Your task to perform on an android device: see tabs open on other devices in the chrome app Image 0: 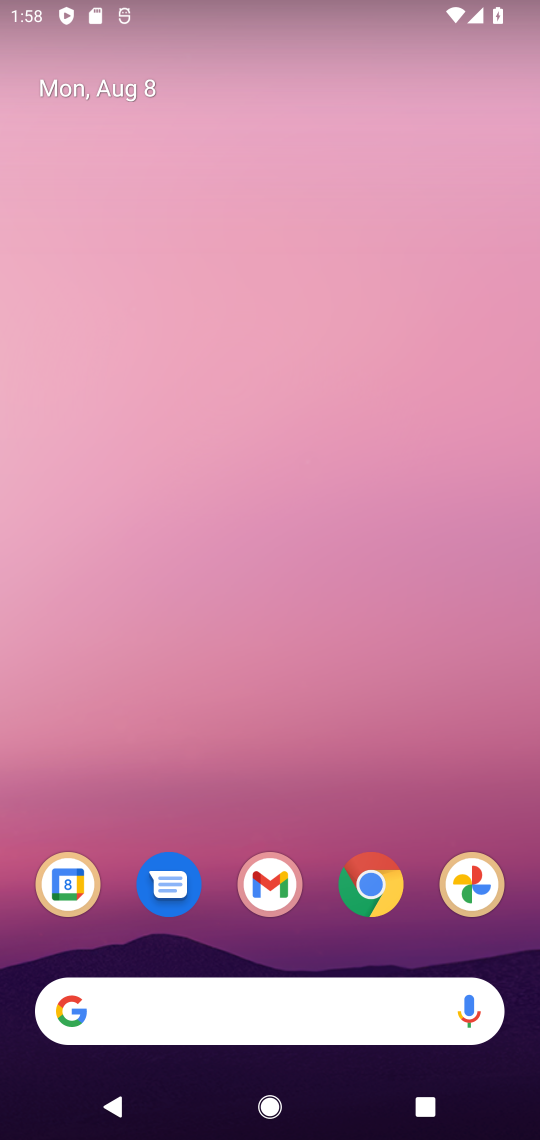
Step 0: click (368, 879)
Your task to perform on an android device: see tabs open on other devices in the chrome app Image 1: 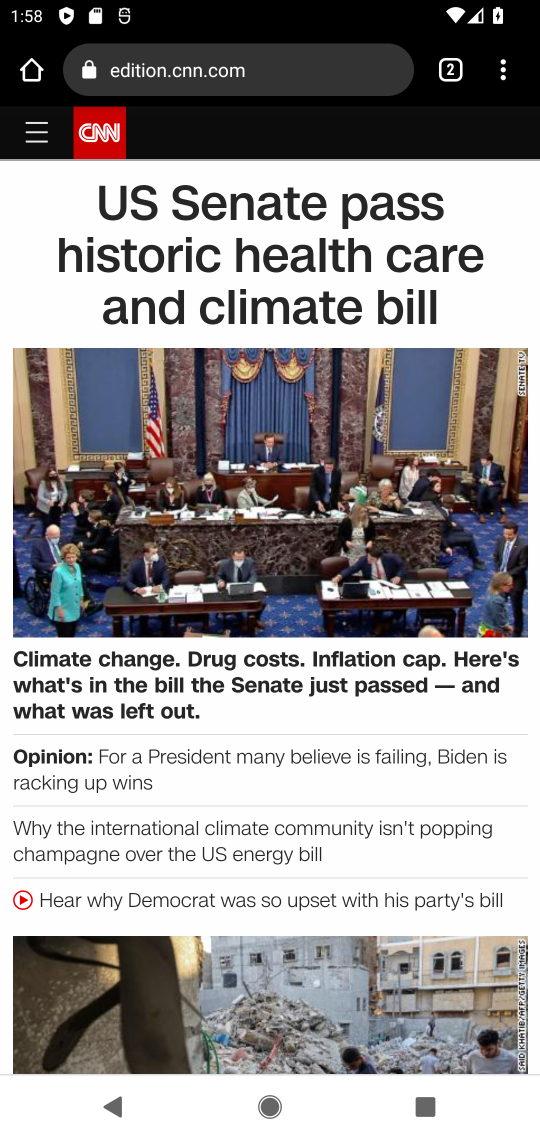
Step 1: click (504, 71)
Your task to perform on an android device: see tabs open on other devices in the chrome app Image 2: 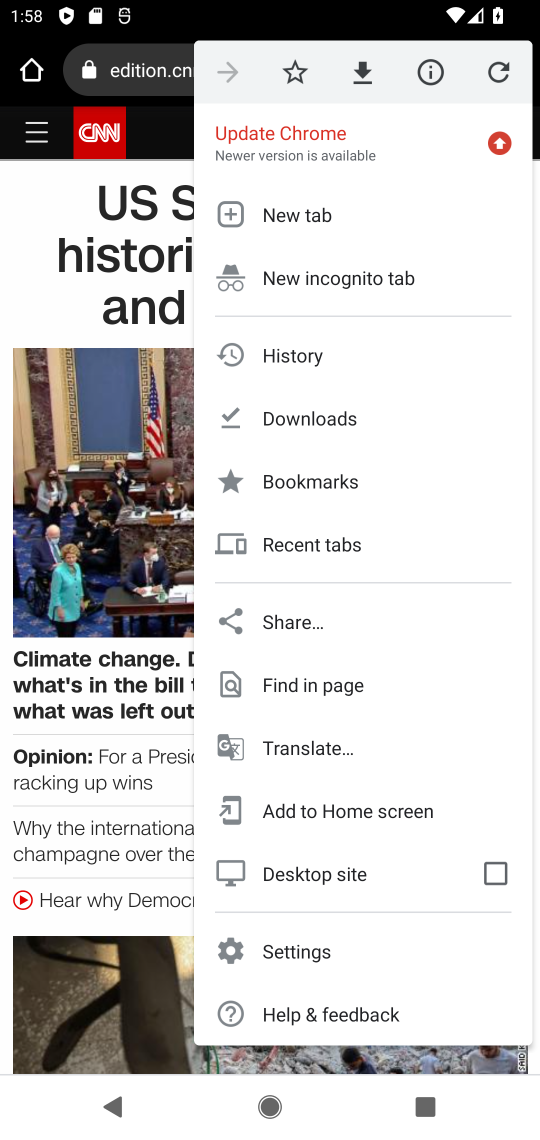
Step 2: click (336, 548)
Your task to perform on an android device: see tabs open on other devices in the chrome app Image 3: 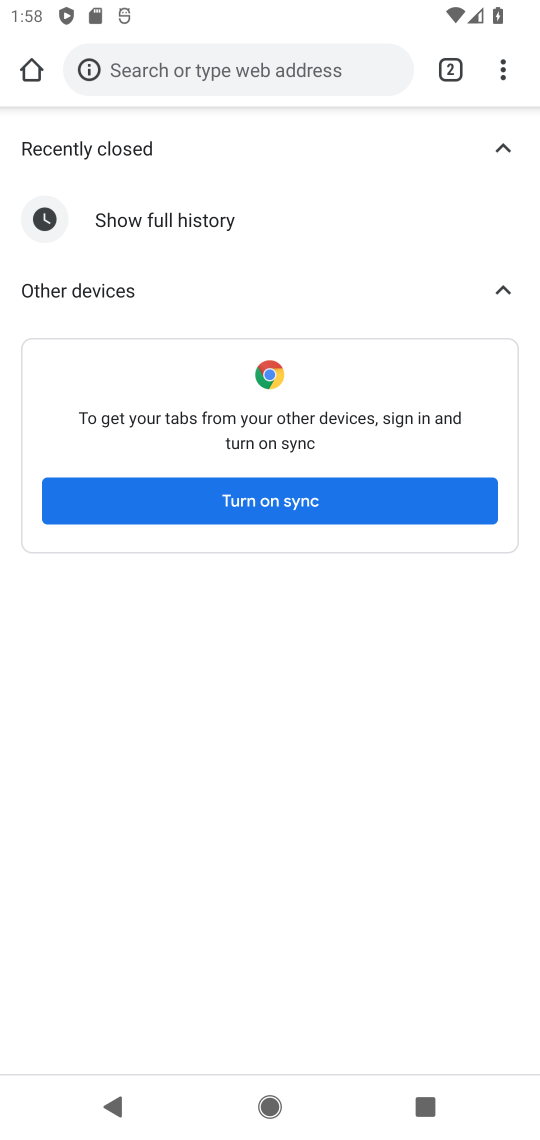
Step 3: task complete